Your task to perform on an android device: delete a single message in the gmail app Image 0: 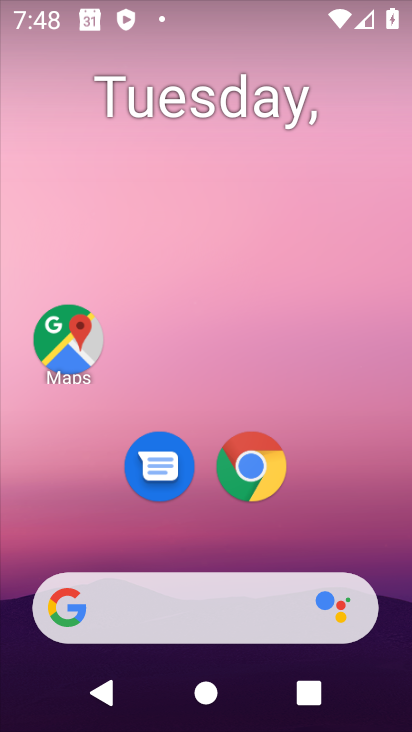
Step 0: drag from (0, 582) to (232, 150)
Your task to perform on an android device: delete a single message in the gmail app Image 1: 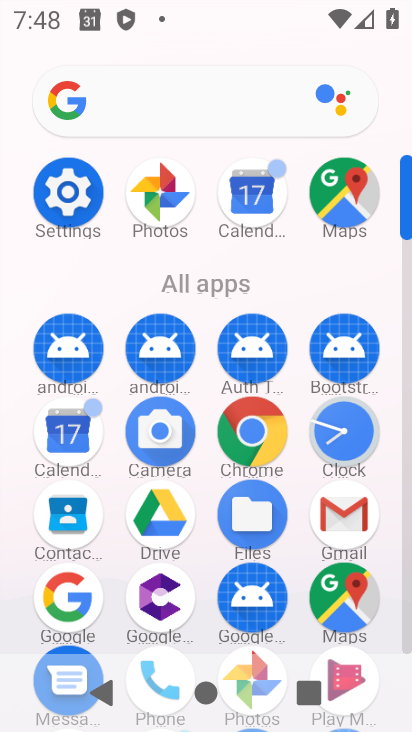
Step 1: click (335, 507)
Your task to perform on an android device: delete a single message in the gmail app Image 2: 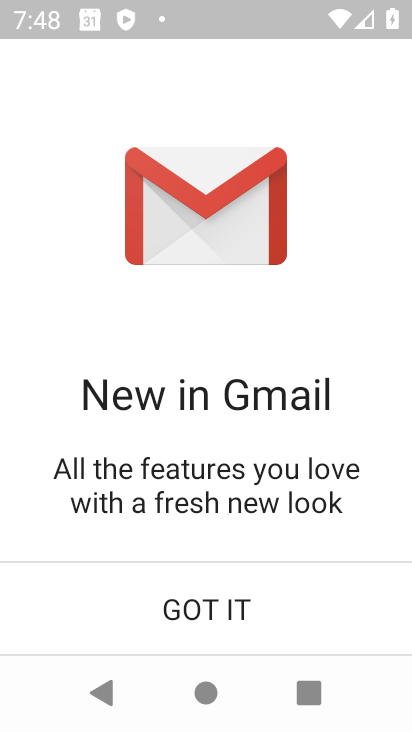
Step 2: click (240, 604)
Your task to perform on an android device: delete a single message in the gmail app Image 3: 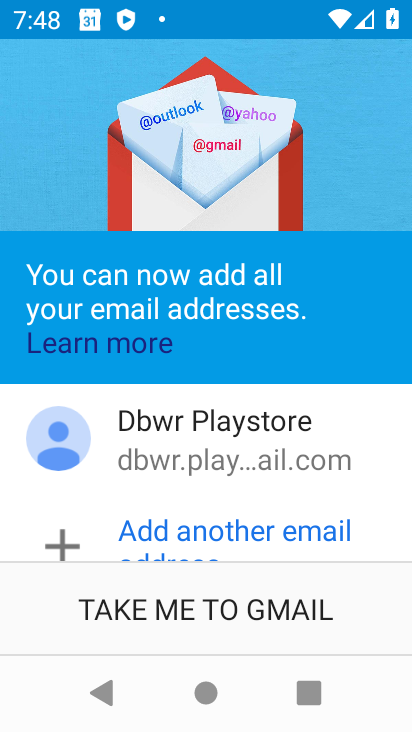
Step 3: click (186, 613)
Your task to perform on an android device: delete a single message in the gmail app Image 4: 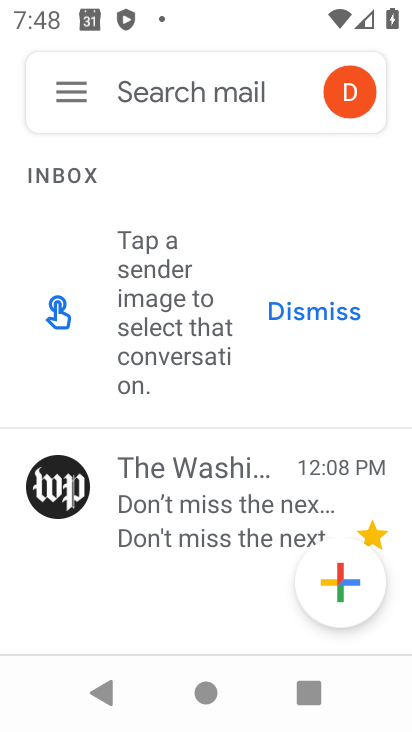
Step 4: click (226, 486)
Your task to perform on an android device: delete a single message in the gmail app Image 5: 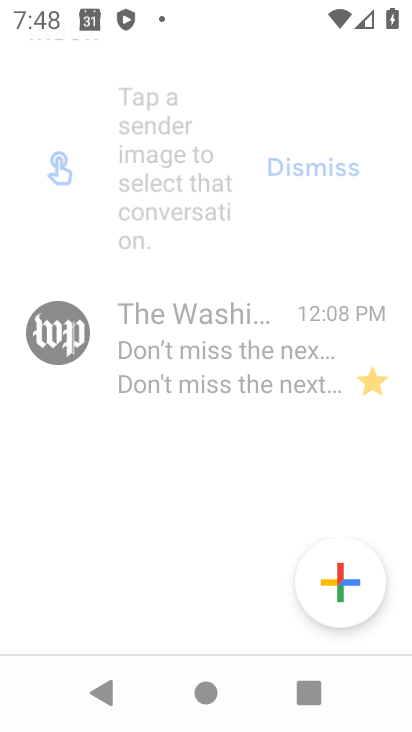
Step 5: click (247, 85)
Your task to perform on an android device: delete a single message in the gmail app Image 6: 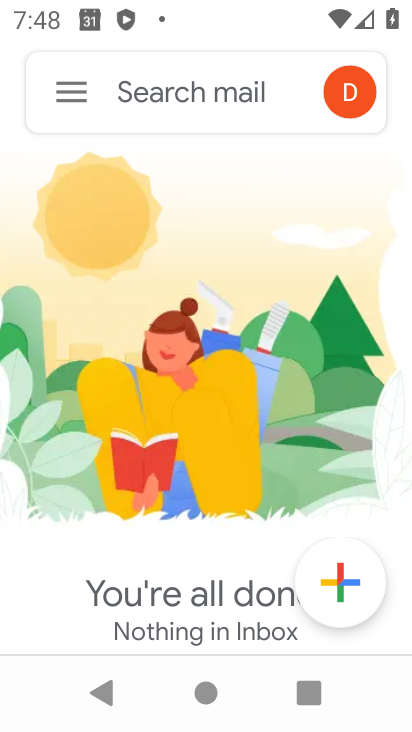
Step 6: task complete